Your task to perform on an android device: turn off notifications in google photos Image 0: 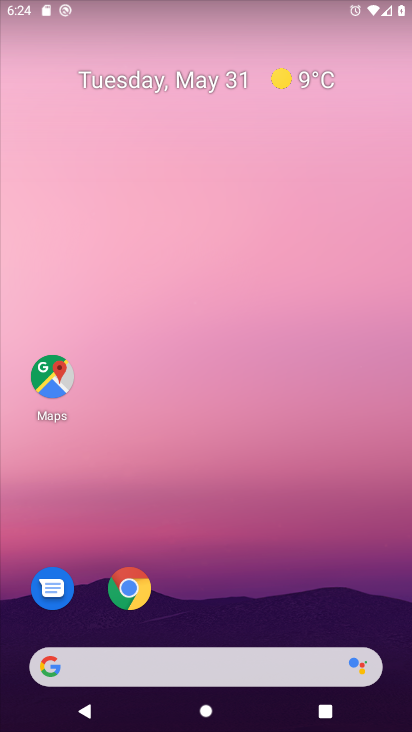
Step 0: drag from (216, 615) to (229, 214)
Your task to perform on an android device: turn off notifications in google photos Image 1: 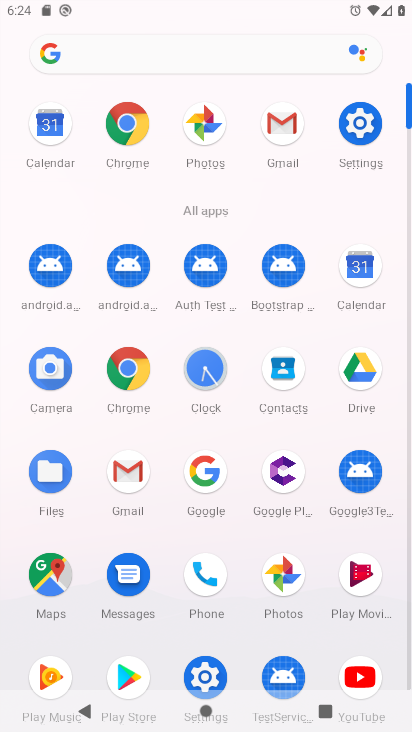
Step 1: click (284, 585)
Your task to perform on an android device: turn off notifications in google photos Image 2: 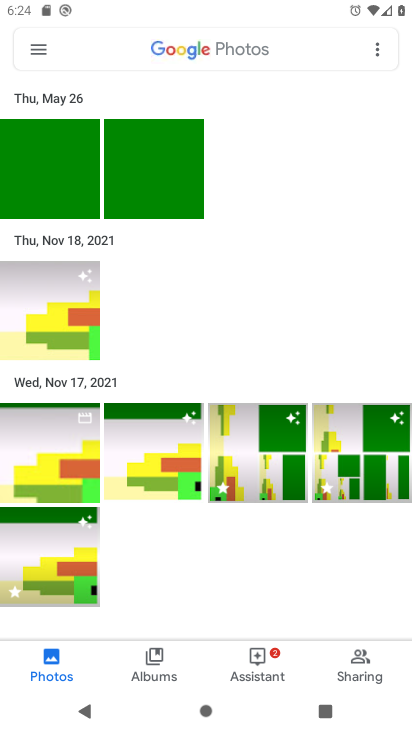
Step 2: click (34, 47)
Your task to perform on an android device: turn off notifications in google photos Image 3: 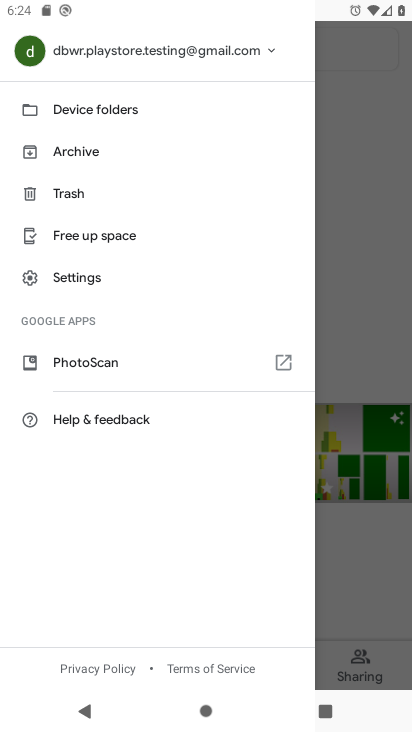
Step 3: click (69, 279)
Your task to perform on an android device: turn off notifications in google photos Image 4: 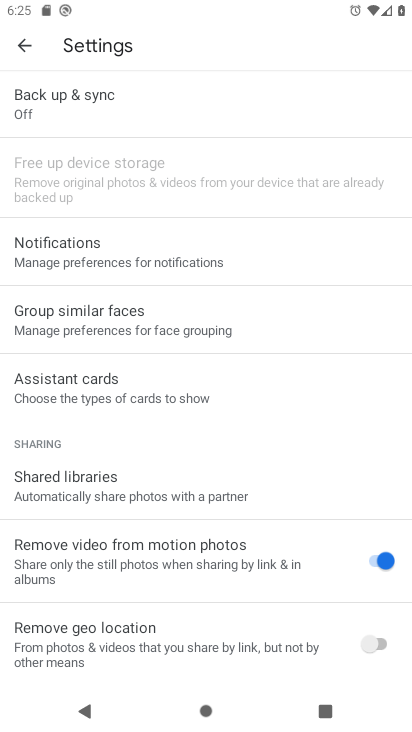
Step 4: click (130, 266)
Your task to perform on an android device: turn off notifications in google photos Image 5: 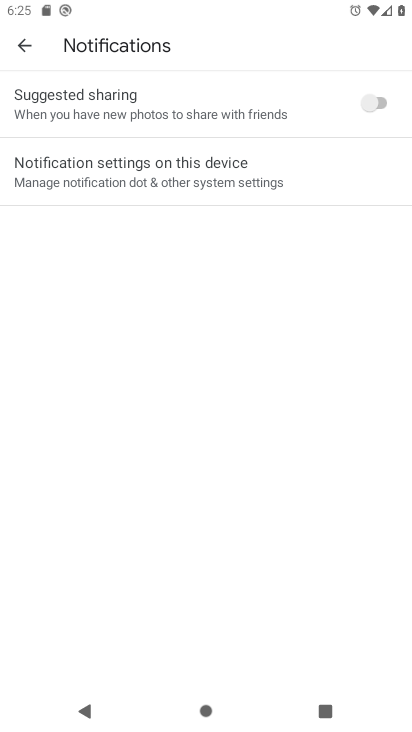
Step 5: click (168, 165)
Your task to perform on an android device: turn off notifications in google photos Image 6: 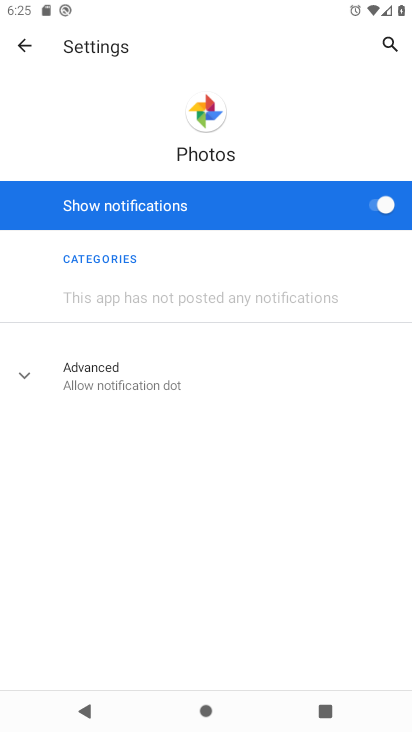
Step 6: click (369, 212)
Your task to perform on an android device: turn off notifications in google photos Image 7: 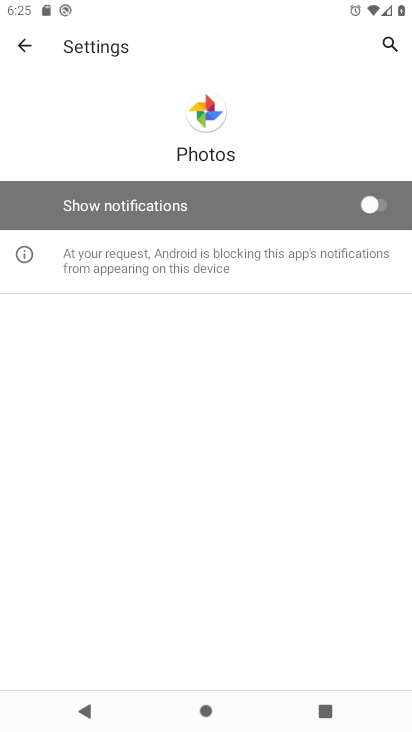
Step 7: task complete